Your task to perform on an android device: create a new album in the google photos Image 0: 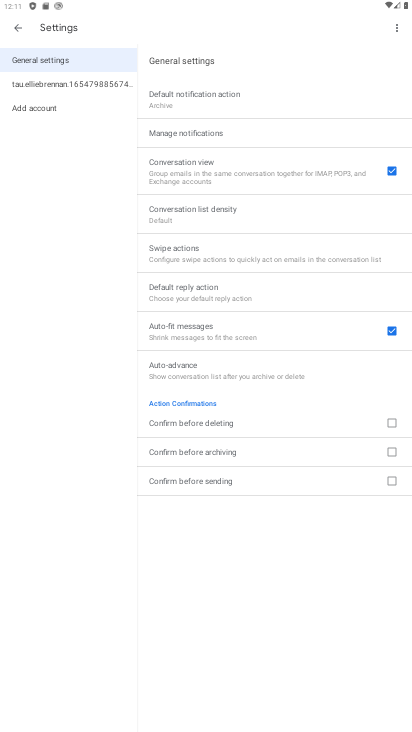
Step 0: press home button
Your task to perform on an android device: create a new album in the google photos Image 1: 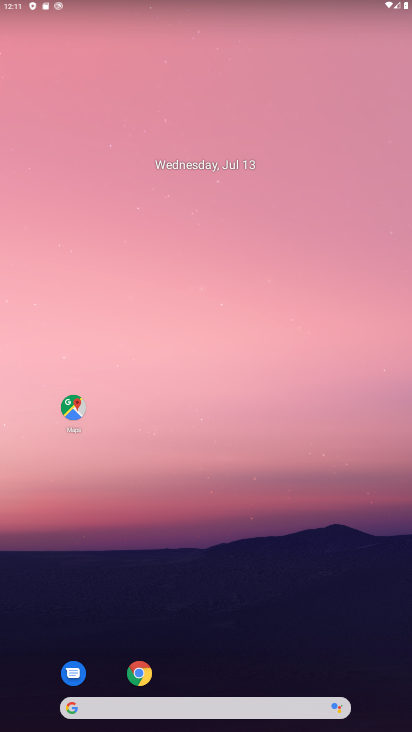
Step 1: drag from (209, 661) to (242, 83)
Your task to perform on an android device: create a new album in the google photos Image 2: 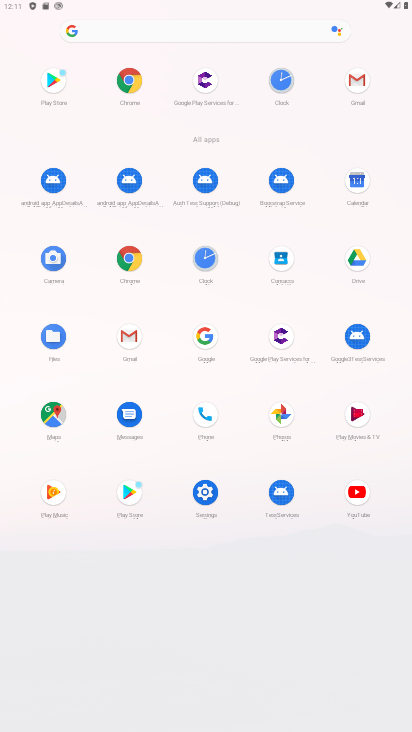
Step 2: click (285, 426)
Your task to perform on an android device: create a new album in the google photos Image 3: 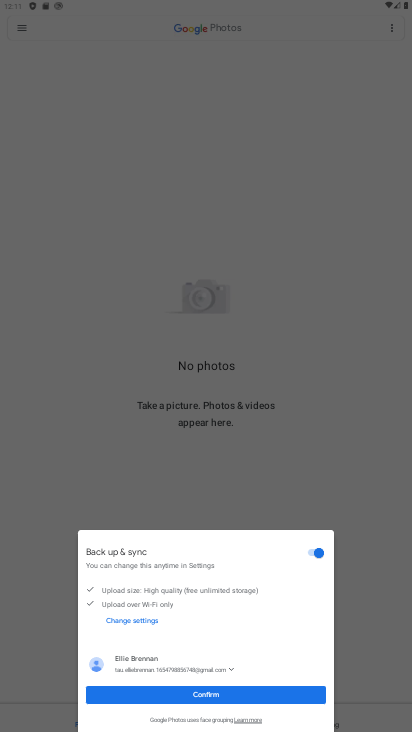
Step 3: click (171, 693)
Your task to perform on an android device: create a new album in the google photos Image 4: 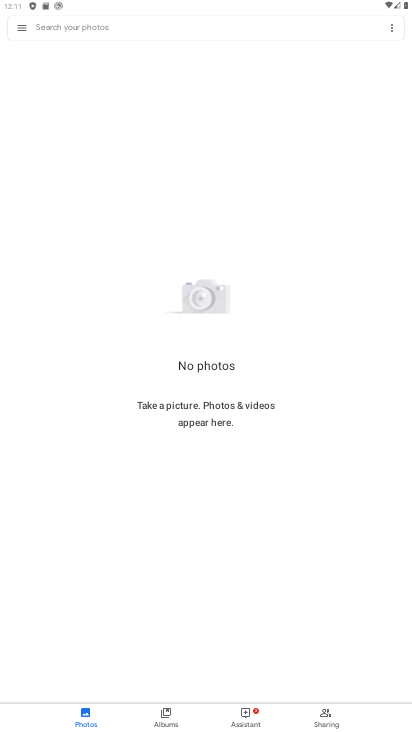
Step 4: click (225, 383)
Your task to perform on an android device: create a new album in the google photos Image 5: 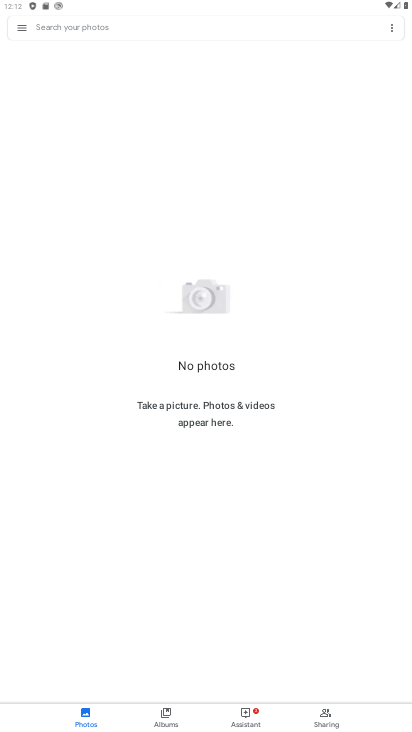
Step 5: task complete